Your task to perform on an android device: open the mobile data screen to see how much data has been used Image 0: 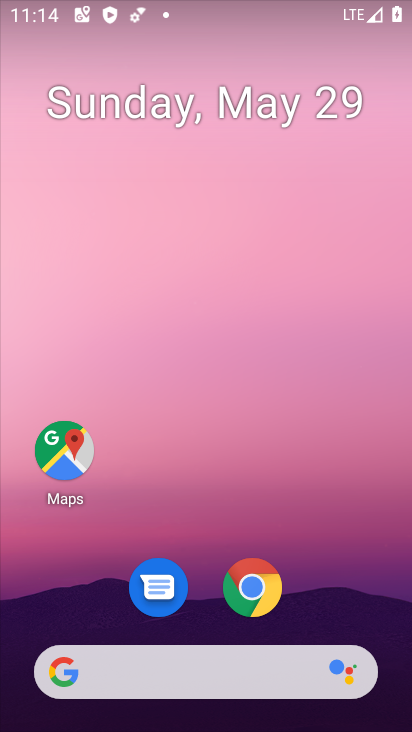
Step 0: drag from (369, 582) to (218, 38)
Your task to perform on an android device: open the mobile data screen to see how much data has been used Image 1: 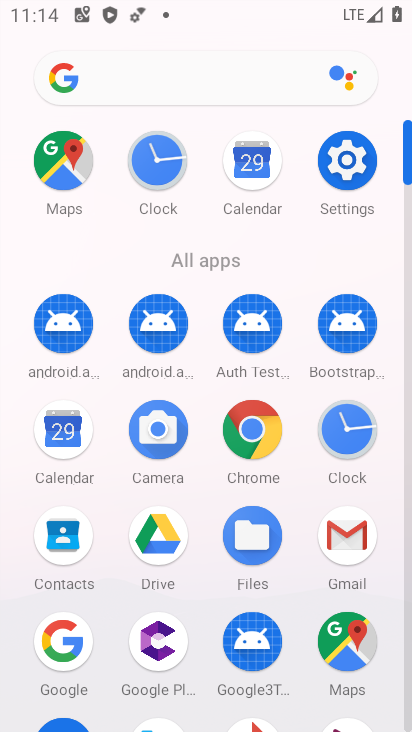
Step 1: click (355, 152)
Your task to perform on an android device: open the mobile data screen to see how much data has been used Image 2: 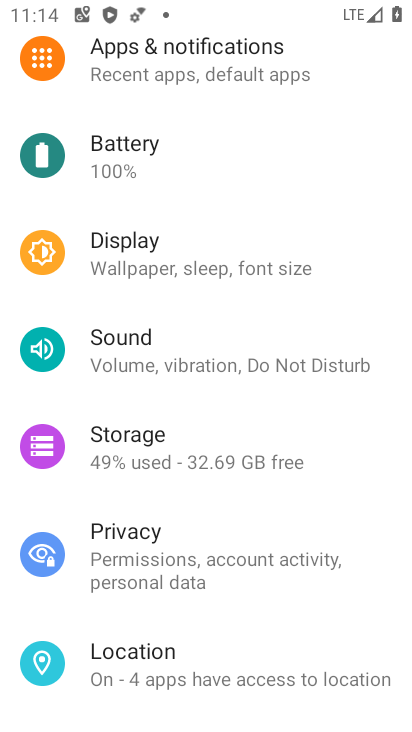
Step 2: drag from (219, 604) to (202, 132)
Your task to perform on an android device: open the mobile data screen to see how much data has been used Image 3: 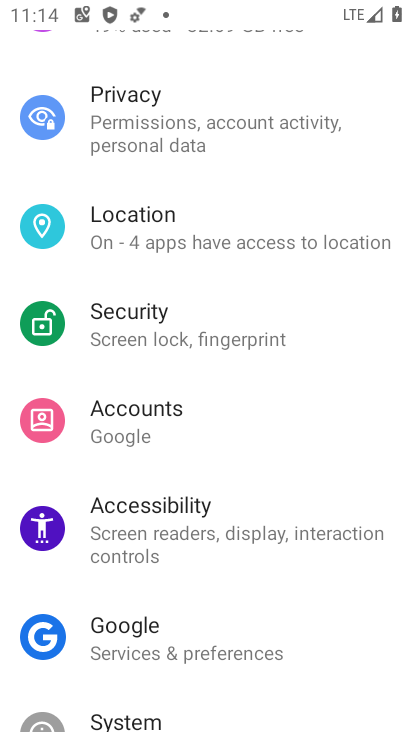
Step 3: drag from (249, 125) to (300, 425)
Your task to perform on an android device: open the mobile data screen to see how much data has been used Image 4: 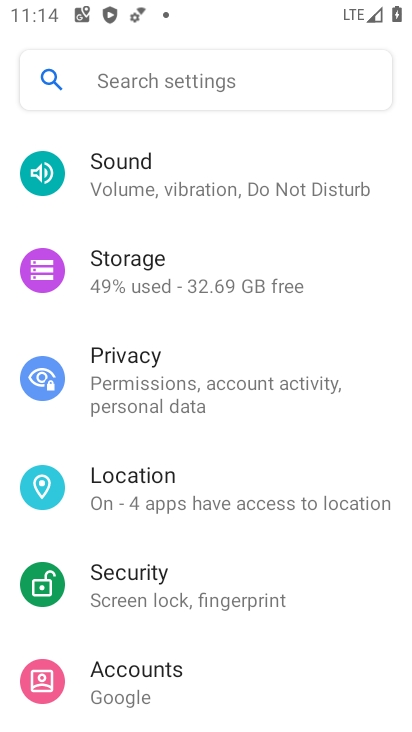
Step 4: drag from (244, 504) to (218, 119)
Your task to perform on an android device: open the mobile data screen to see how much data has been used Image 5: 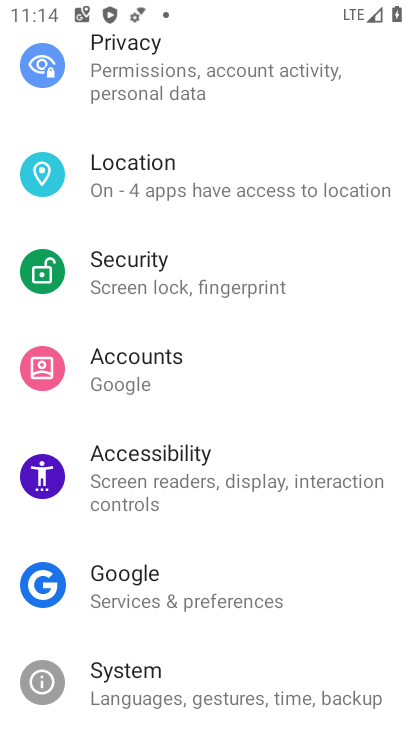
Step 5: drag from (219, 576) to (230, 159)
Your task to perform on an android device: open the mobile data screen to see how much data has been used Image 6: 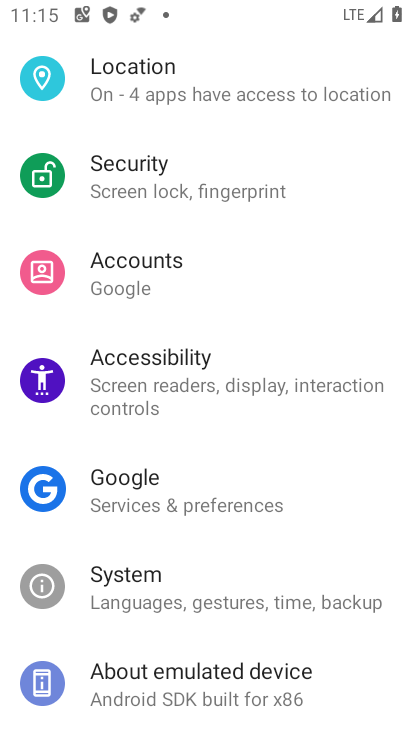
Step 6: drag from (182, 230) to (202, 703)
Your task to perform on an android device: open the mobile data screen to see how much data has been used Image 7: 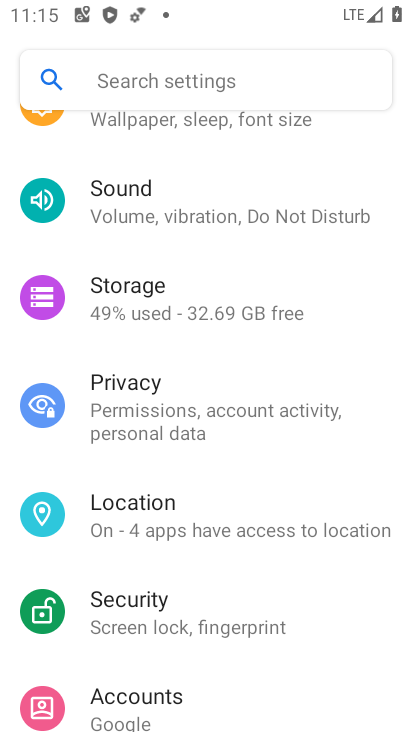
Step 7: drag from (180, 249) to (208, 635)
Your task to perform on an android device: open the mobile data screen to see how much data has been used Image 8: 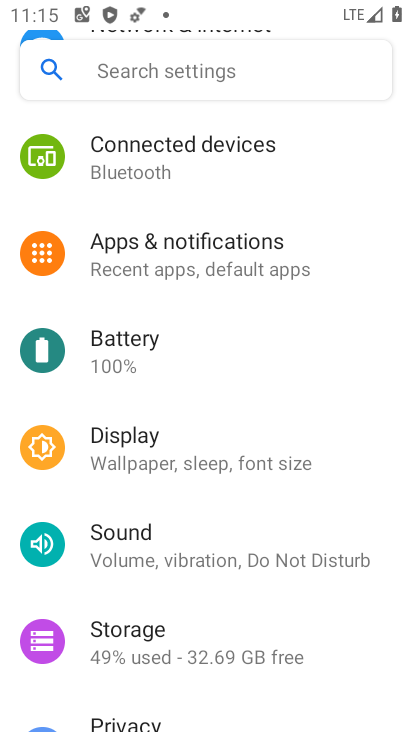
Step 8: drag from (152, 159) to (152, 601)
Your task to perform on an android device: open the mobile data screen to see how much data has been used Image 9: 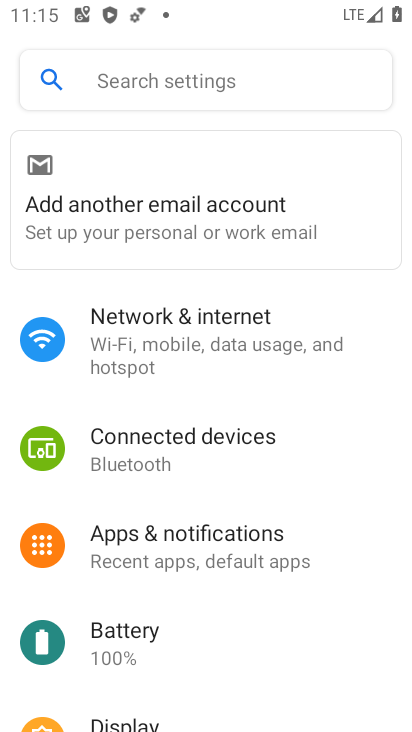
Step 9: click (156, 346)
Your task to perform on an android device: open the mobile data screen to see how much data has been used Image 10: 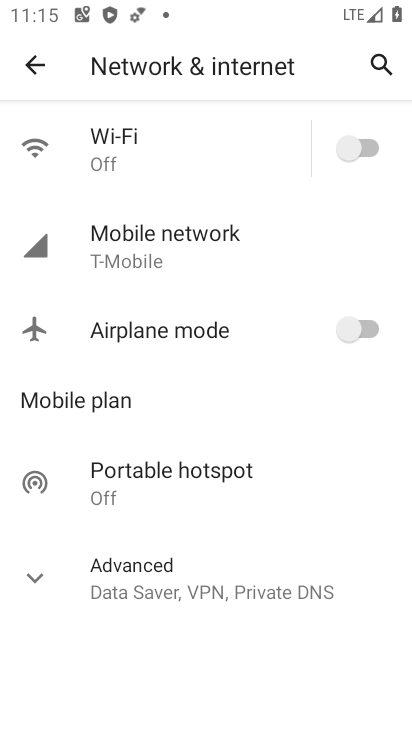
Step 10: click (156, 218)
Your task to perform on an android device: open the mobile data screen to see how much data has been used Image 11: 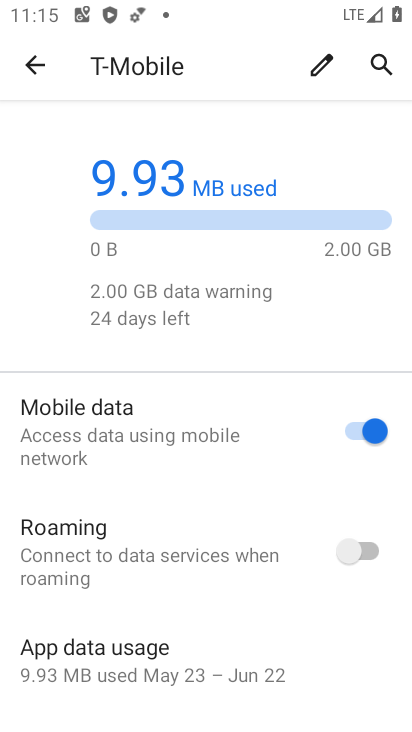
Step 11: task complete